Your task to perform on an android device: open chrome privacy settings Image 0: 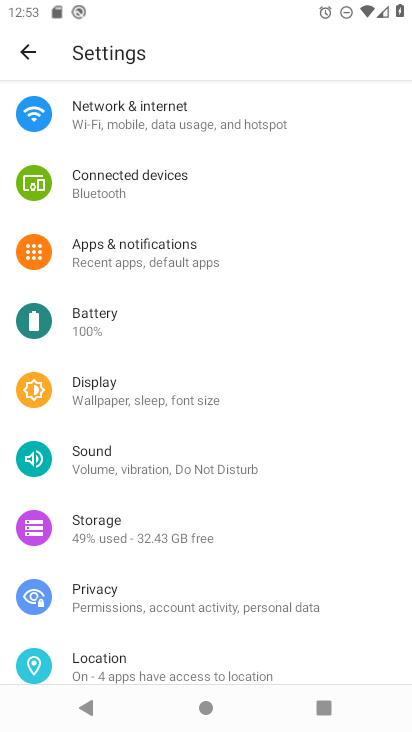
Step 0: press home button
Your task to perform on an android device: open chrome privacy settings Image 1: 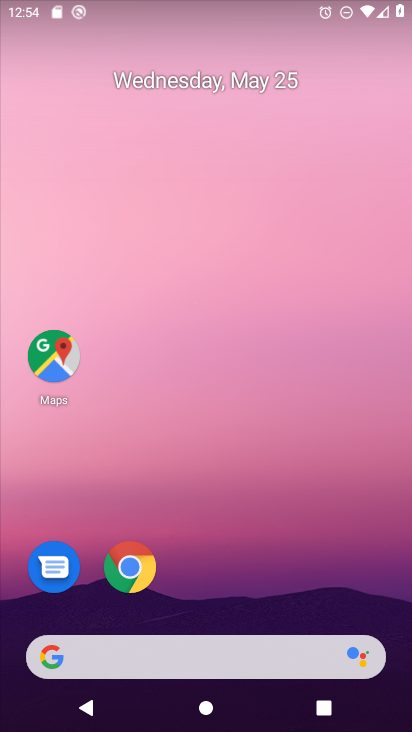
Step 1: click (127, 572)
Your task to perform on an android device: open chrome privacy settings Image 2: 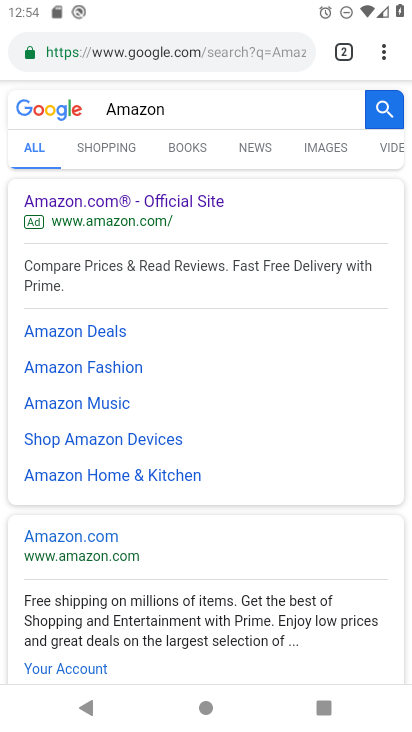
Step 2: press back button
Your task to perform on an android device: open chrome privacy settings Image 3: 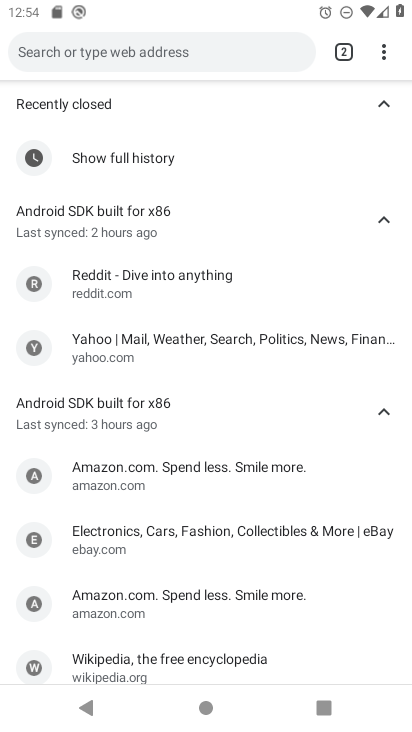
Step 3: click (385, 47)
Your task to perform on an android device: open chrome privacy settings Image 4: 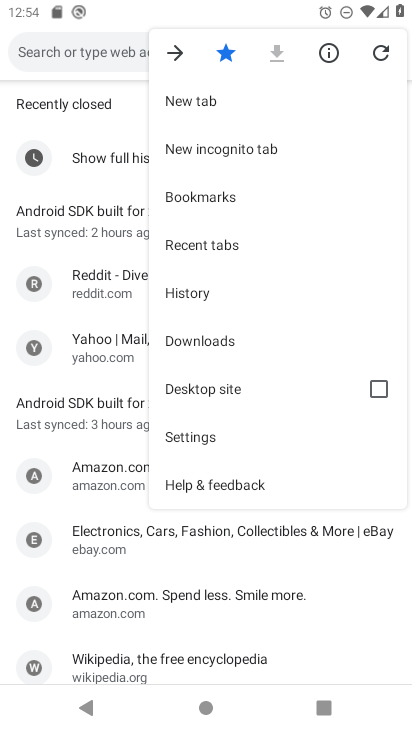
Step 4: click (197, 434)
Your task to perform on an android device: open chrome privacy settings Image 5: 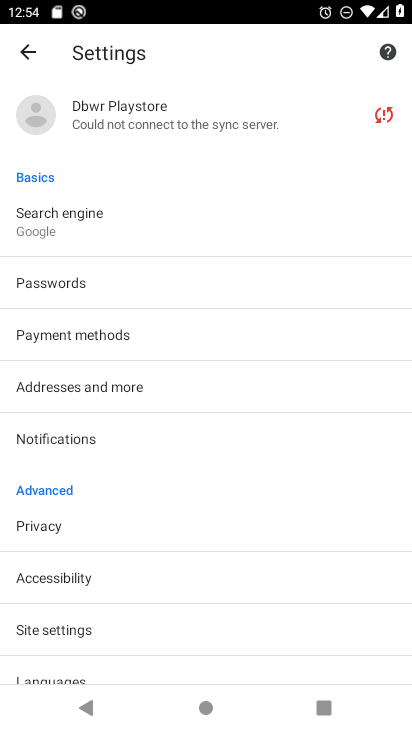
Step 5: click (44, 523)
Your task to perform on an android device: open chrome privacy settings Image 6: 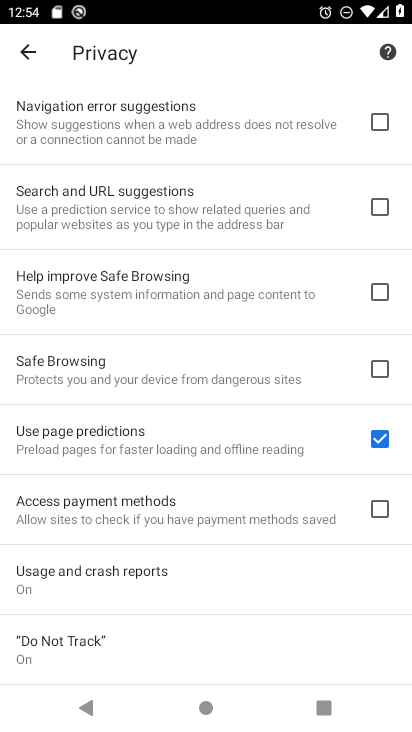
Step 6: task complete